Your task to perform on an android device: Open privacy settings Image 0: 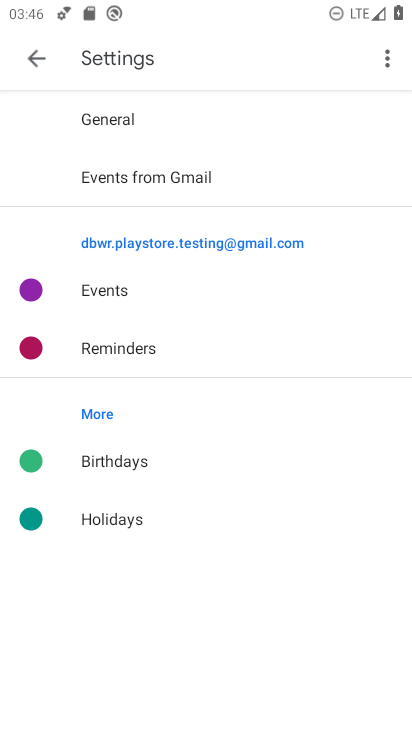
Step 0: press home button
Your task to perform on an android device: Open privacy settings Image 1: 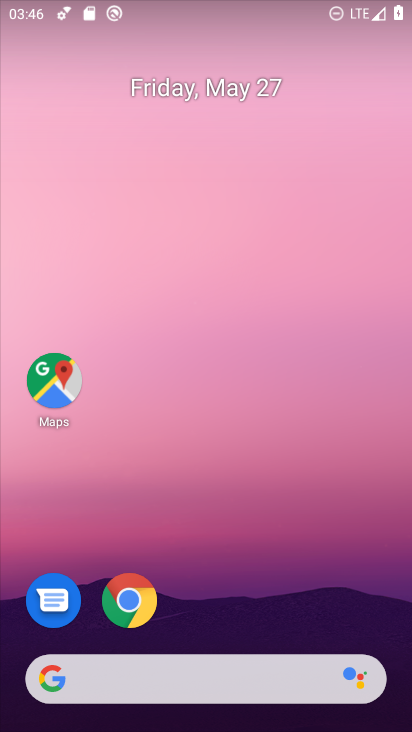
Step 1: drag from (226, 723) to (211, 75)
Your task to perform on an android device: Open privacy settings Image 2: 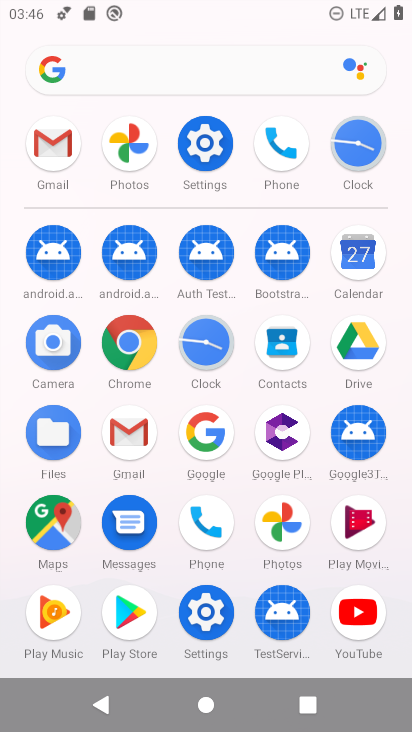
Step 2: click (201, 144)
Your task to perform on an android device: Open privacy settings Image 3: 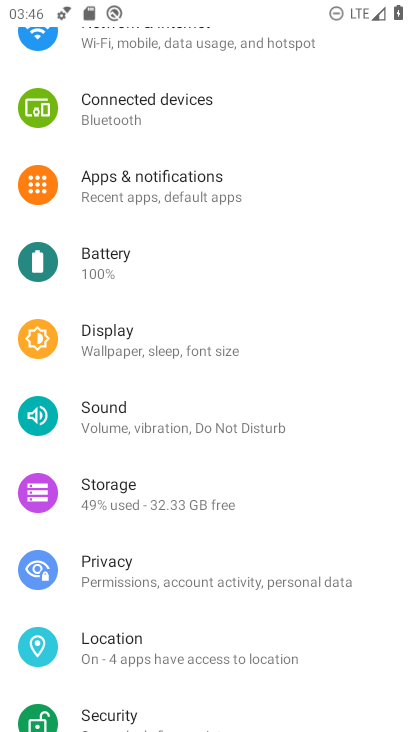
Step 3: click (123, 564)
Your task to perform on an android device: Open privacy settings Image 4: 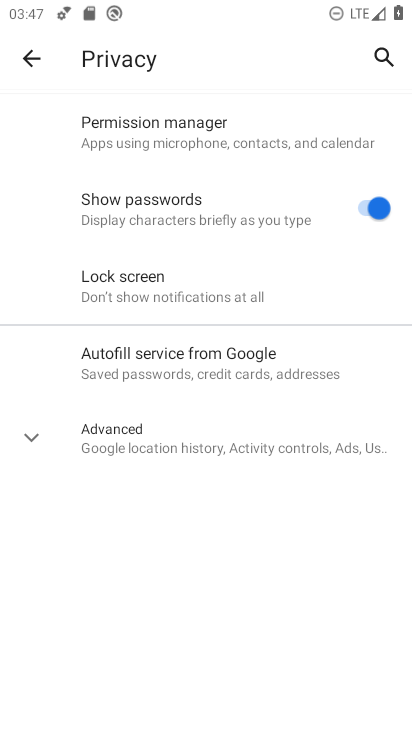
Step 4: task complete